Your task to perform on an android device: allow cookies in the chrome app Image 0: 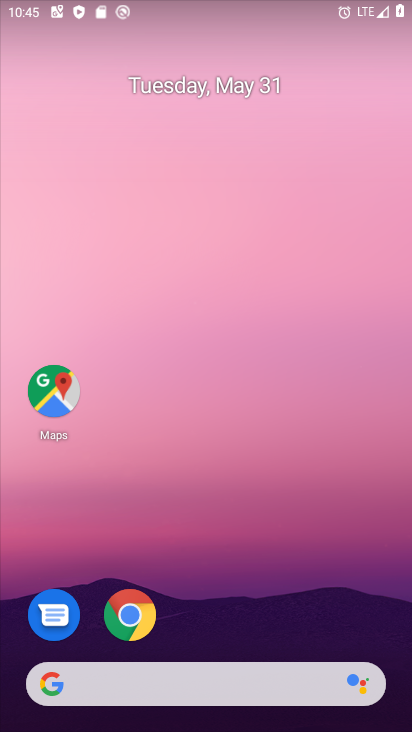
Step 0: drag from (312, 462) to (340, 39)
Your task to perform on an android device: allow cookies in the chrome app Image 1: 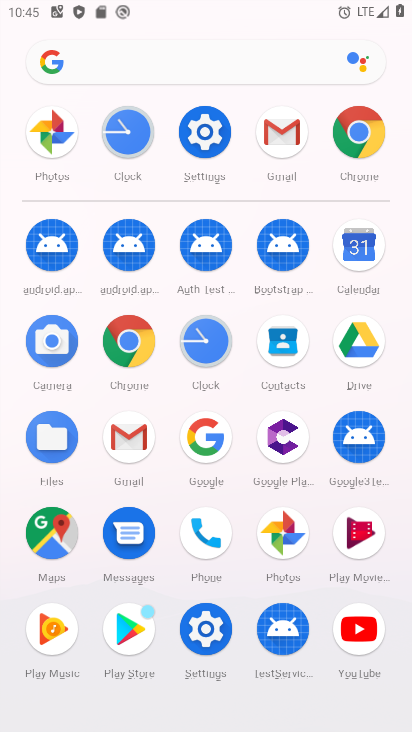
Step 1: click (348, 120)
Your task to perform on an android device: allow cookies in the chrome app Image 2: 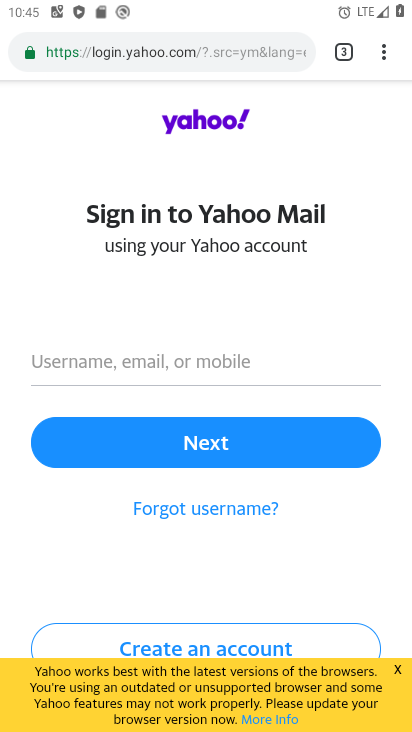
Step 2: drag from (392, 48) to (262, 622)
Your task to perform on an android device: allow cookies in the chrome app Image 3: 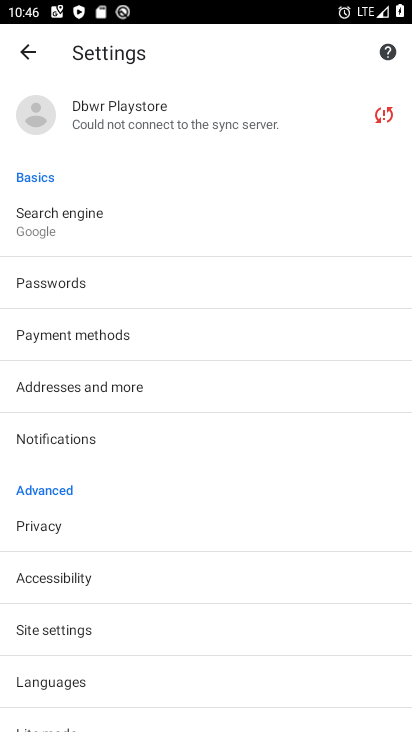
Step 3: drag from (186, 633) to (256, 249)
Your task to perform on an android device: allow cookies in the chrome app Image 4: 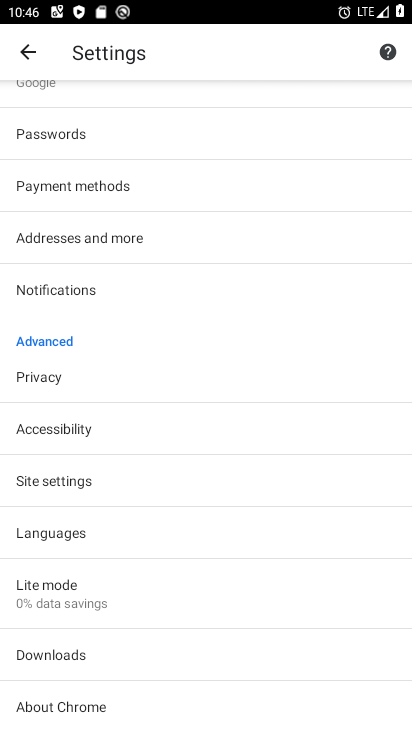
Step 4: click (73, 490)
Your task to perform on an android device: allow cookies in the chrome app Image 5: 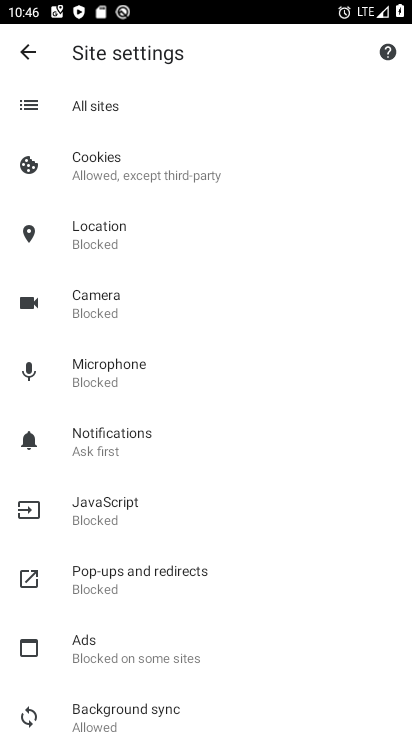
Step 5: click (141, 172)
Your task to perform on an android device: allow cookies in the chrome app Image 6: 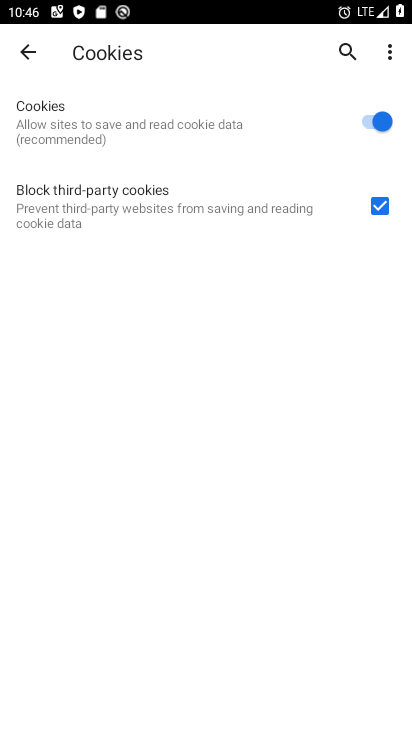
Step 6: task complete